Your task to perform on an android device: Is it going to rain today? Image 0: 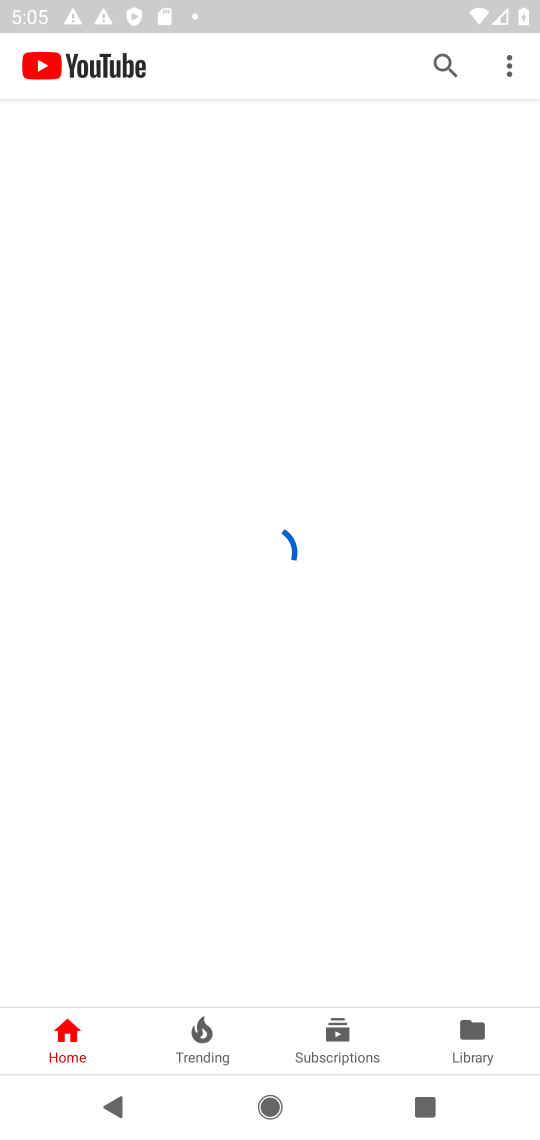
Step 0: press back button
Your task to perform on an android device: Is it going to rain today? Image 1: 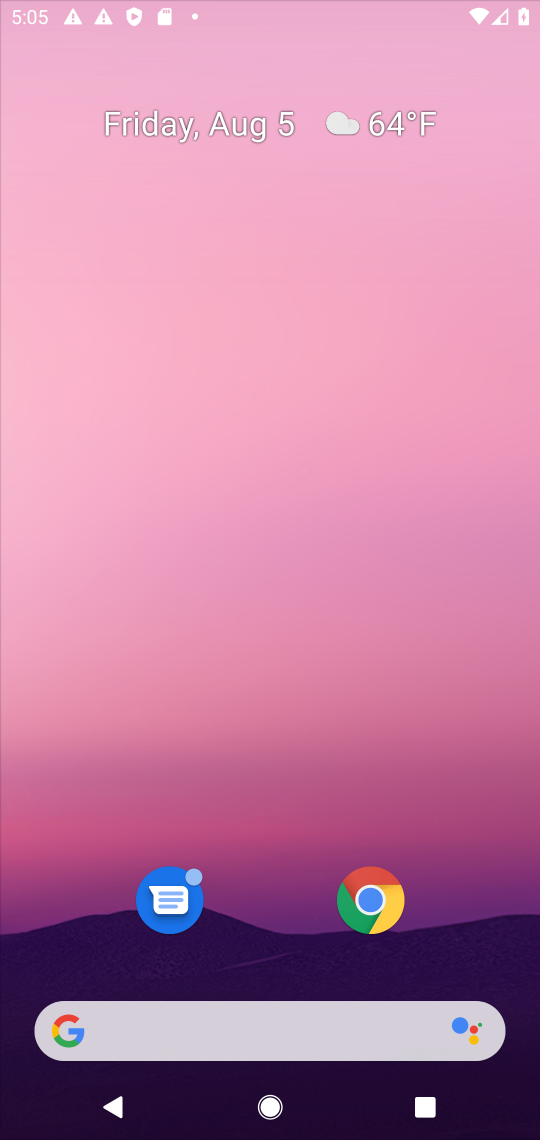
Step 1: press home button
Your task to perform on an android device: Is it going to rain today? Image 2: 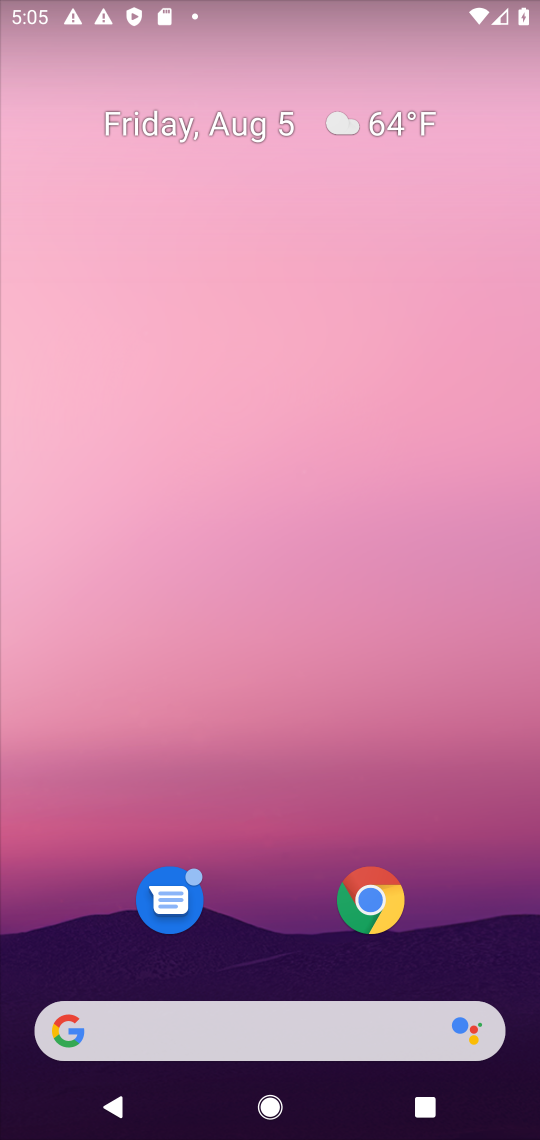
Step 2: drag from (260, 1028) to (244, 308)
Your task to perform on an android device: Is it going to rain today? Image 3: 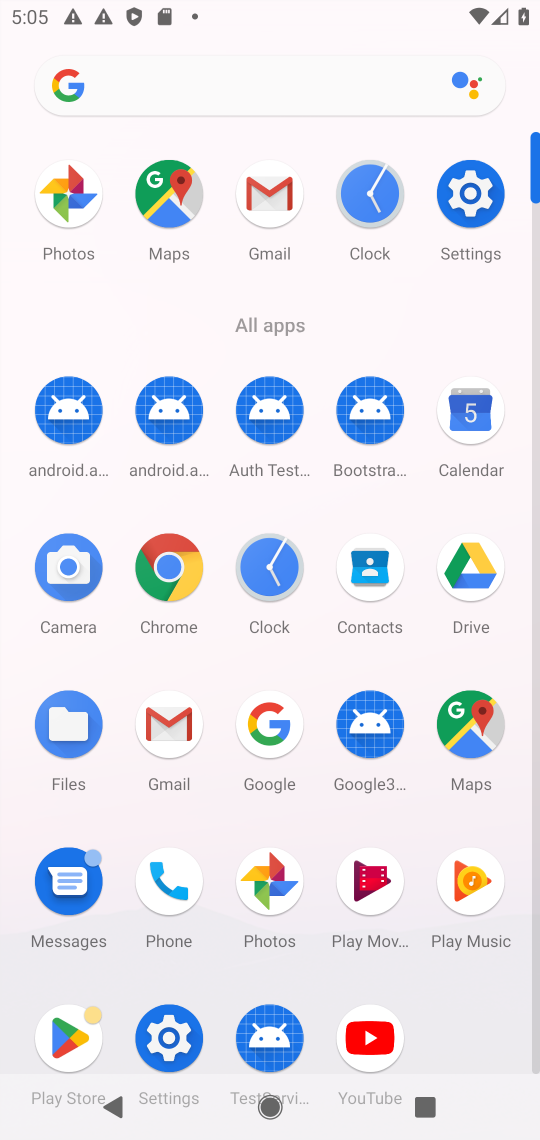
Step 3: click (165, 581)
Your task to perform on an android device: Is it going to rain today? Image 4: 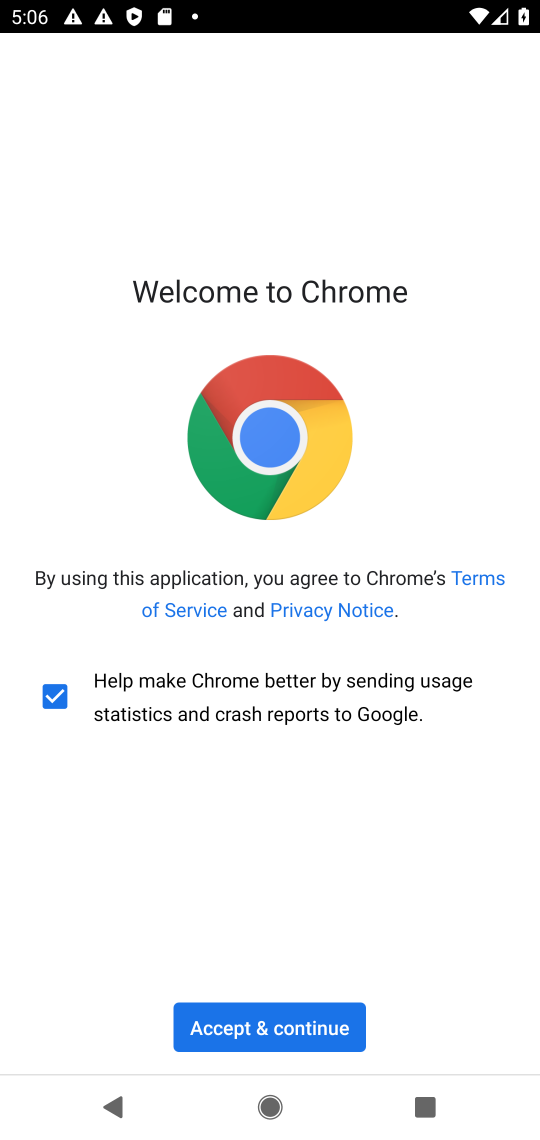
Step 4: click (238, 1010)
Your task to perform on an android device: Is it going to rain today? Image 5: 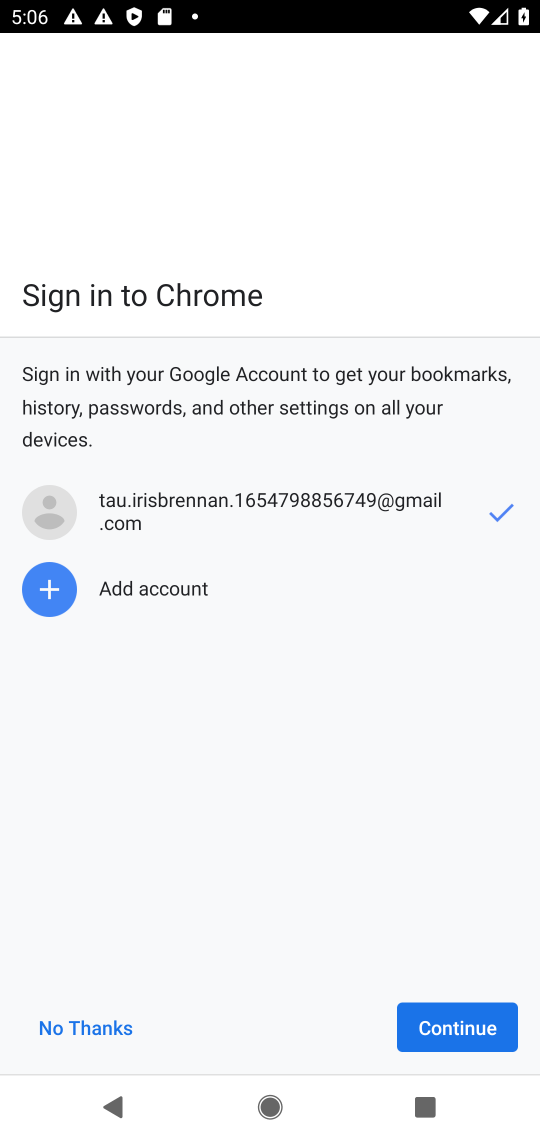
Step 5: click (436, 1013)
Your task to perform on an android device: Is it going to rain today? Image 6: 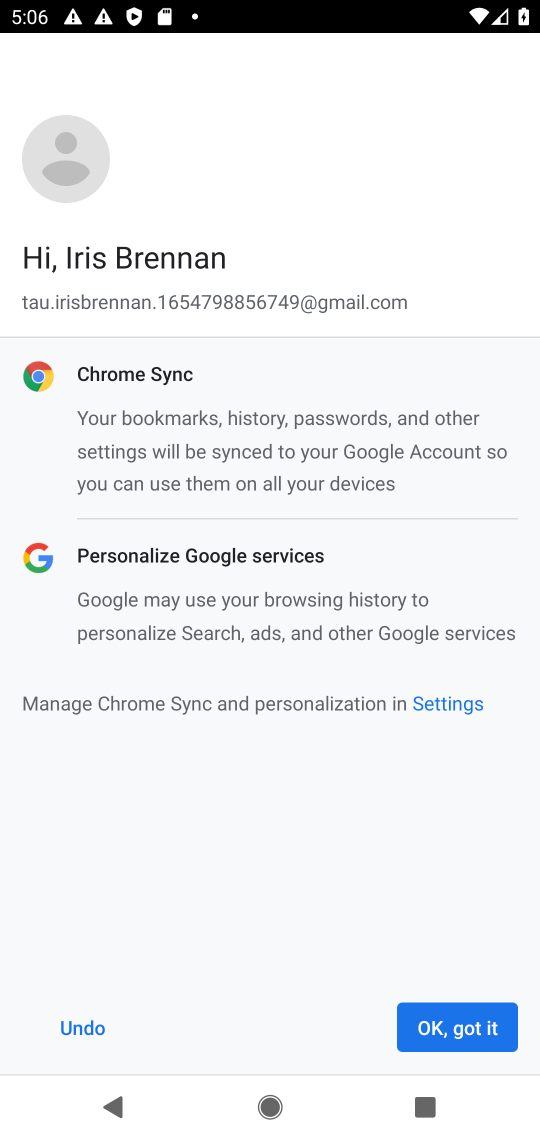
Step 6: click (436, 1013)
Your task to perform on an android device: Is it going to rain today? Image 7: 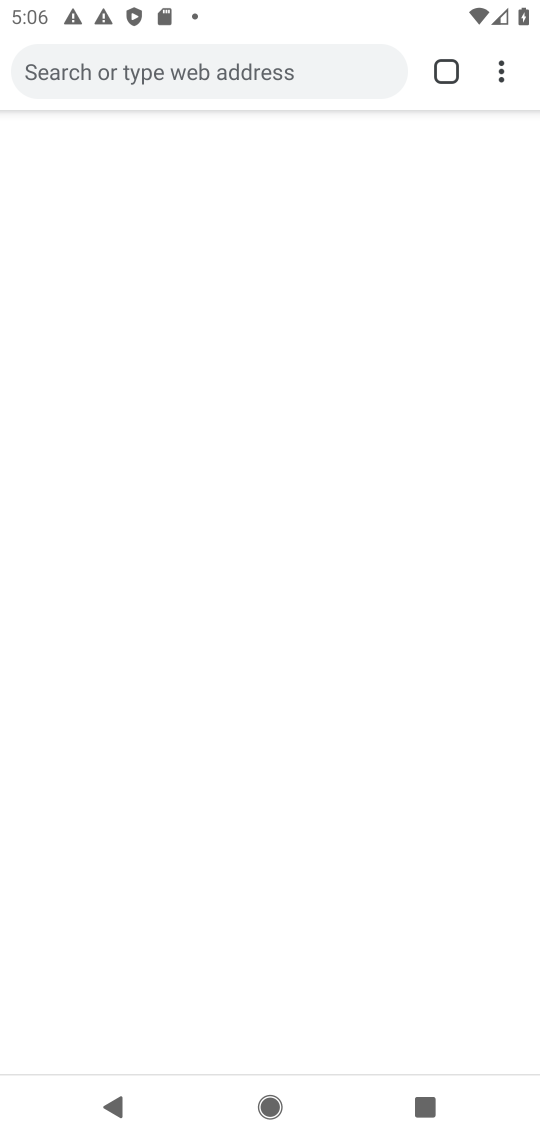
Step 7: click (177, 78)
Your task to perform on an android device: Is it going to rain today? Image 8: 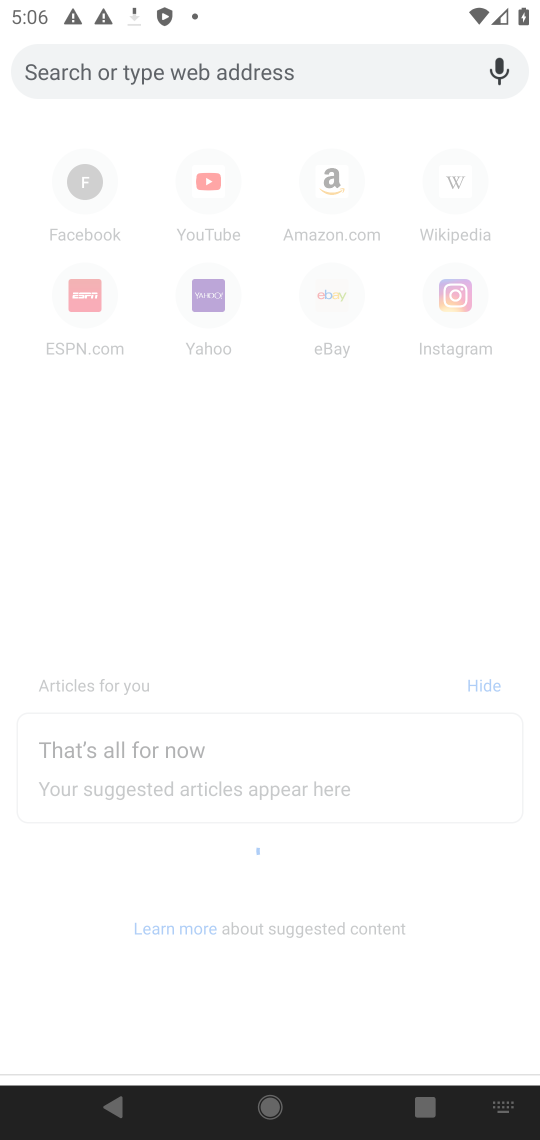
Step 8: type "weather todaty"
Your task to perform on an android device: Is it going to rain today? Image 9: 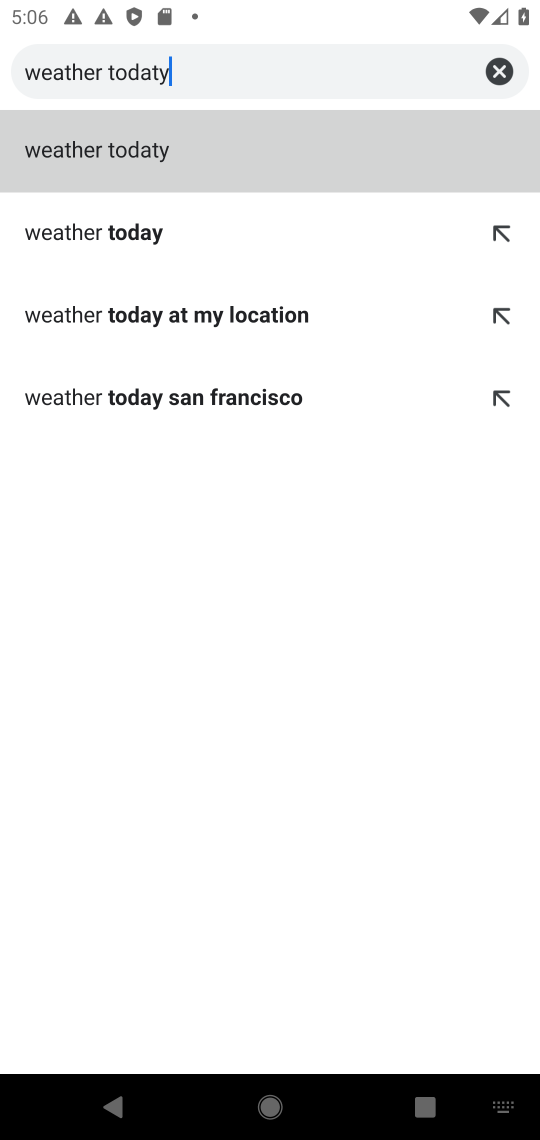
Step 9: type "weather todat"
Your task to perform on an android device: Is it going to rain today? Image 10: 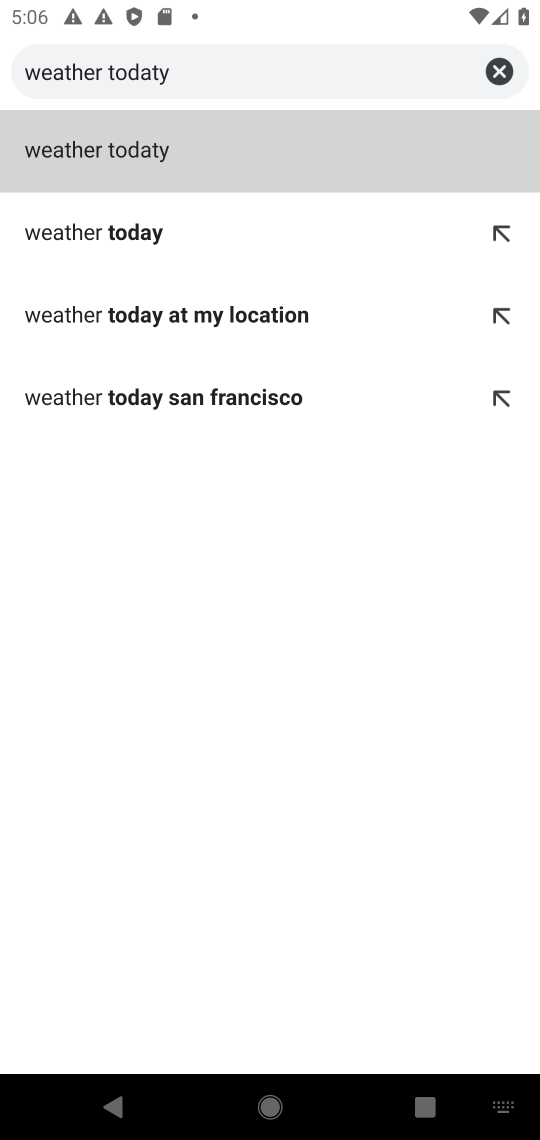
Step 10: click (170, 240)
Your task to perform on an android device: Is it going to rain today? Image 11: 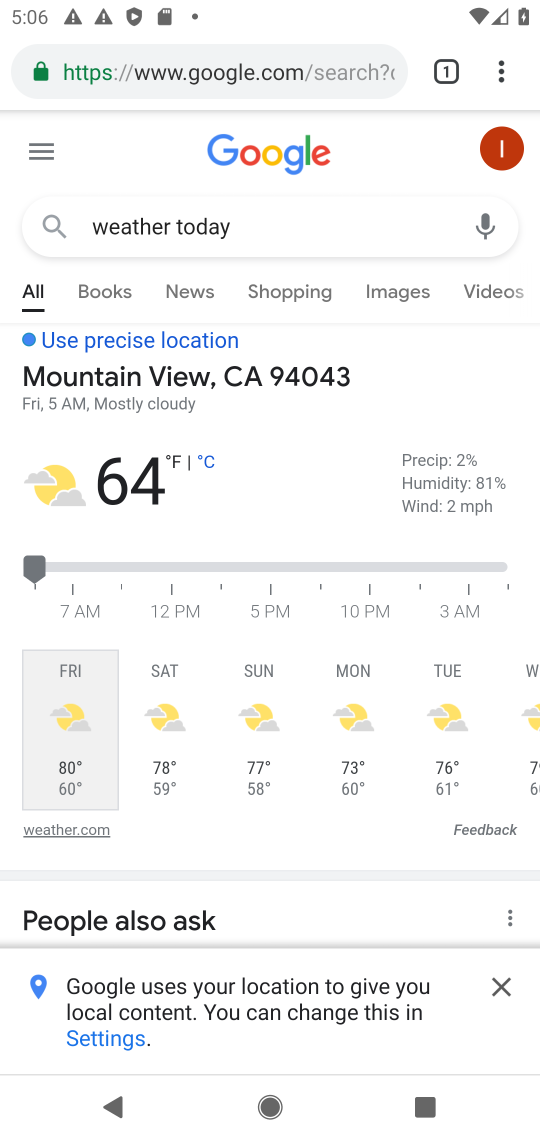
Step 11: task complete